Your task to perform on an android device: Toggle the flashlight Image 0: 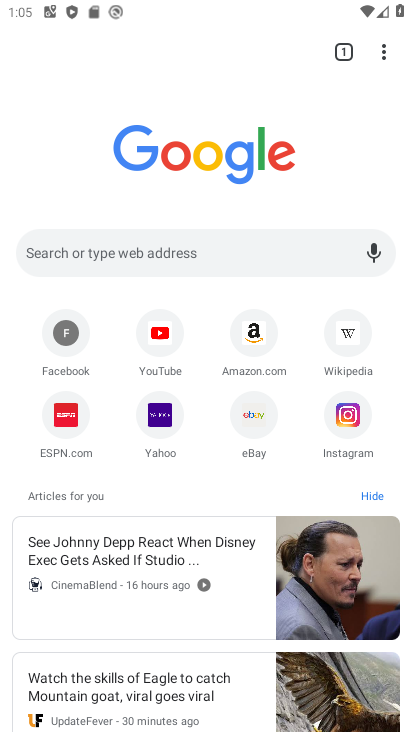
Step 0: drag from (254, 8) to (255, 574)
Your task to perform on an android device: Toggle the flashlight Image 1: 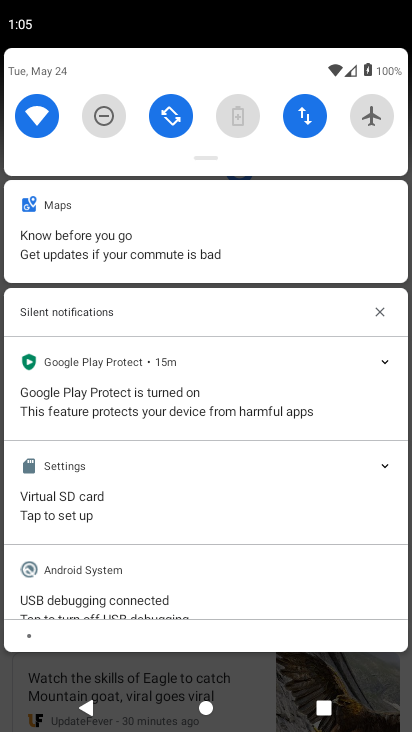
Step 1: drag from (206, 62) to (240, 410)
Your task to perform on an android device: Toggle the flashlight Image 2: 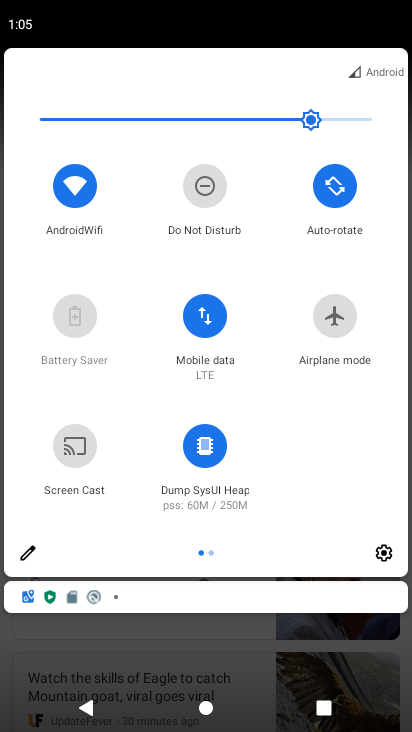
Step 2: click (29, 551)
Your task to perform on an android device: Toggle the flashlight Image 3: 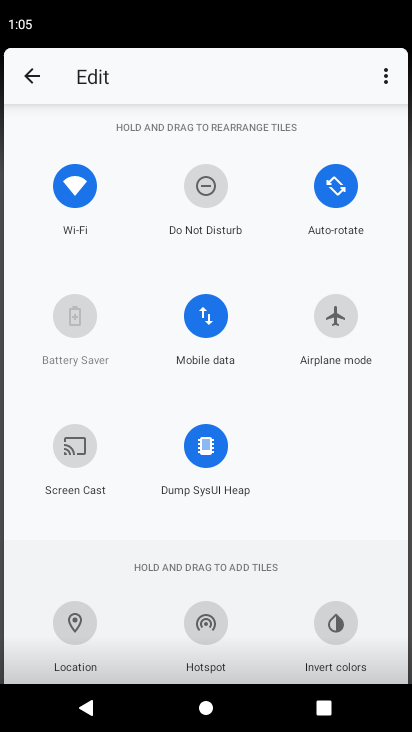
Step 3: task complete